Your task to perform on an android device: turn off data saver in the chrome app Image 0: 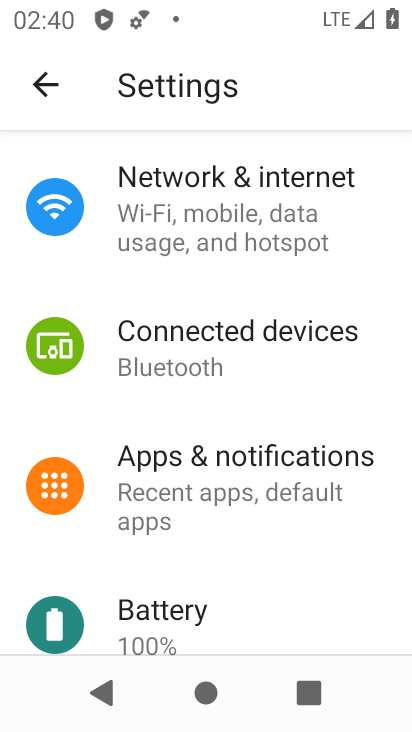
Step 0: press home button
Your task to perform on an android device: turn off data saver in the chrome app Image 1: 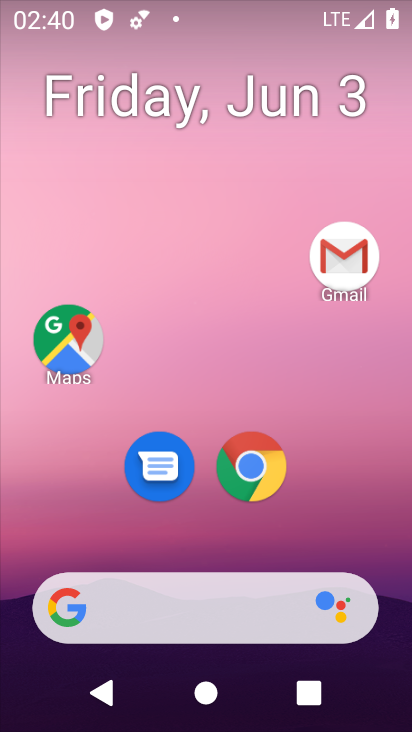
Step 1: drag from (192, 532) to (220, 128)
Your task to perform on an android device: turn off data saver in the chrome app Image 2: 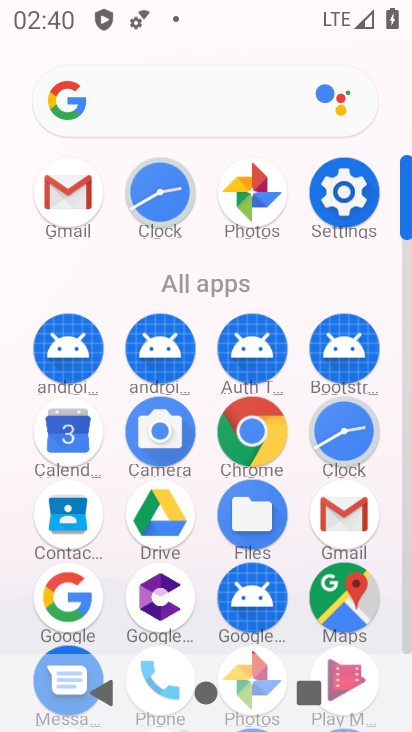
Step 2: click (263, 431)
Your task to perform on an android device: turn off data saver in the chrome app Image 3: 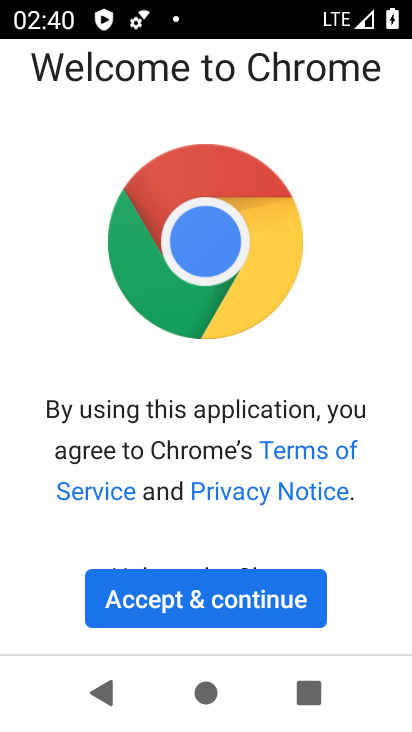
Step 3: click (195, 619)
Your task to perform on an android device: turn off data saver in the chrome app Image 4: 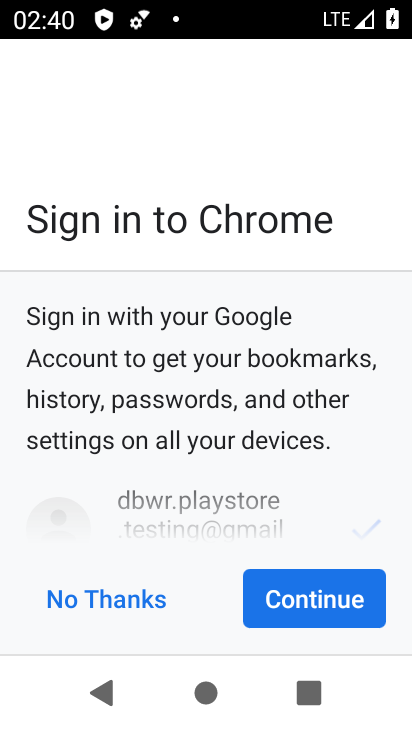
Step 4: click (348, 583)
Your task to perform on an android device: turn off data saver in the chrome app Image 5: 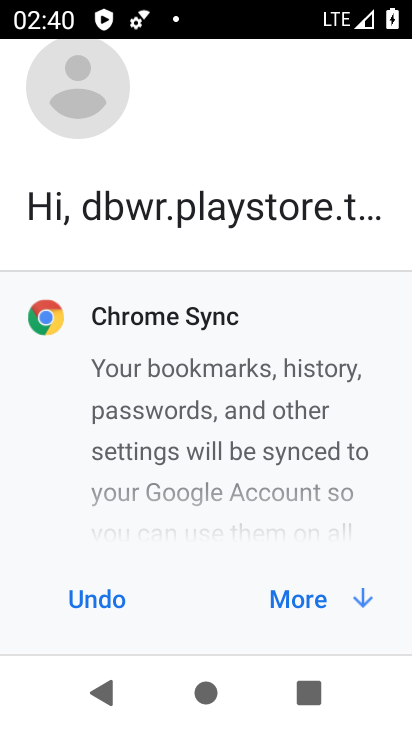
Step 5: click (311, 614)
Your task to perform on an android device: turn off data saver in the chrome app Image 6: 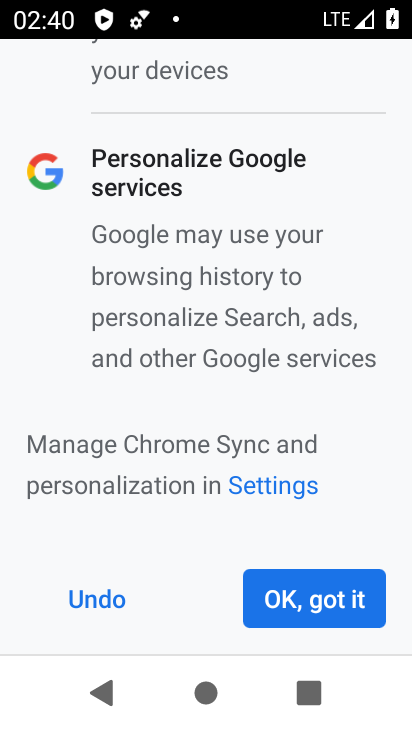
Step 6: click (309, 614)
Your task to perform on an android device: turn off data saver in the chrome app Image 7: 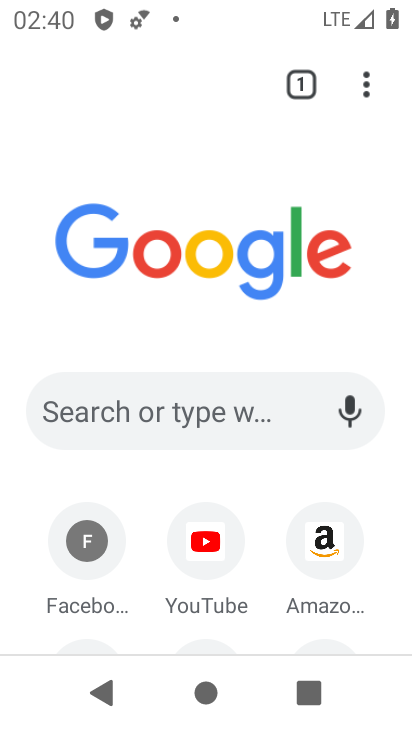
Step 7: click (365, 93)
Your task to perform on an android device: turn off data saver in the chrome app Image 8: 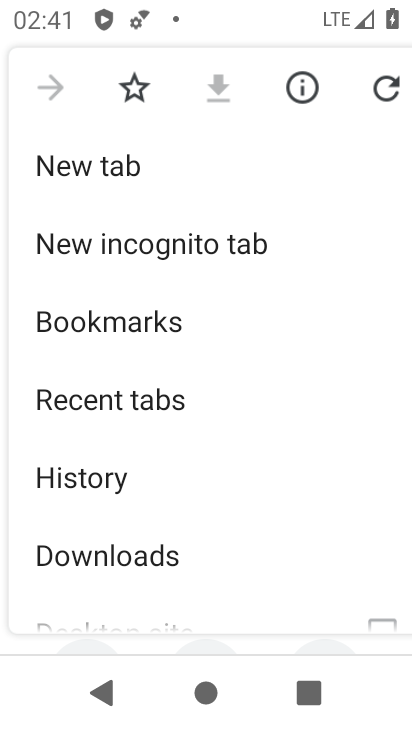
Step 8: drag from (183, 564) to (191, 354)
Your task to perform on an android device: turn off data saver in the chrome app Image 9: 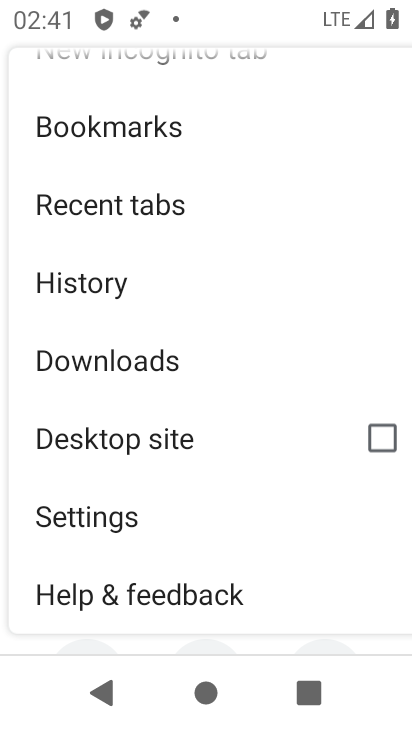
Step 9: drag from (161, 571) to (187, 344)
Your task to perform on an android device: turn off data saver in the chrome app Image 10: 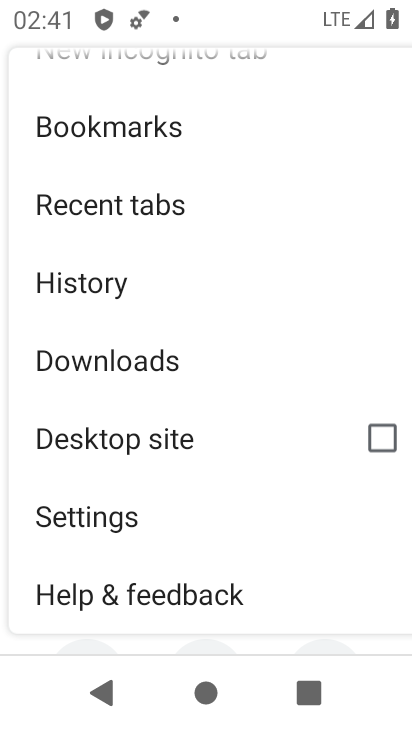
Step 10: click (81, 524)
Your task to perform on an android device: turn off data saver in the chrome app Image 11: 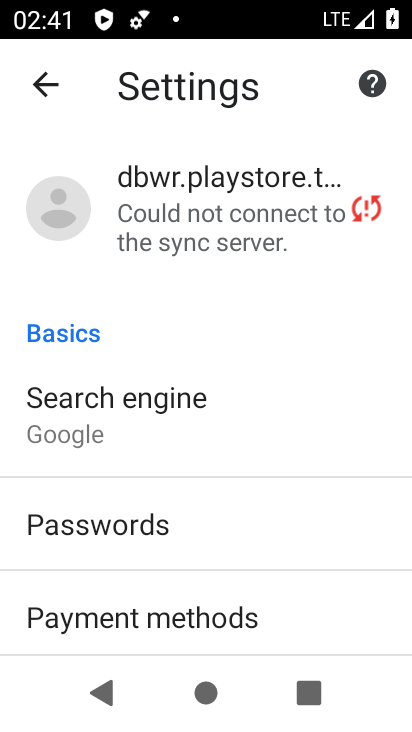
Step 11: drag from (153, 616) to (209, 309)
Your task to perform on an android device: turn off data saver in the chrome app Image 12: 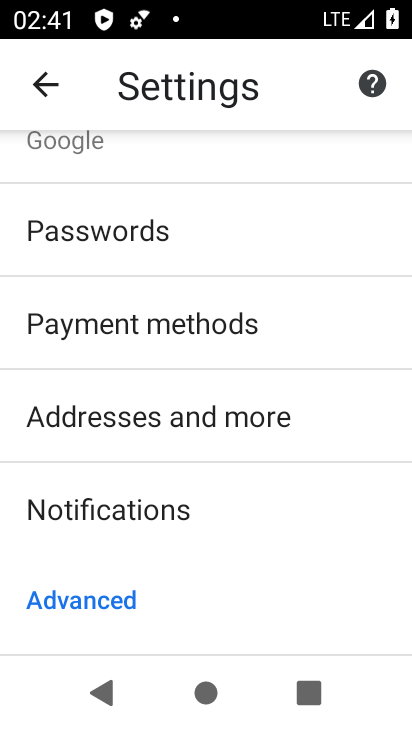
Step 12: drag from (191, 537) to (236, 234)
Your task to perform on an android device: turn off data saver in the chrome app Image 13: 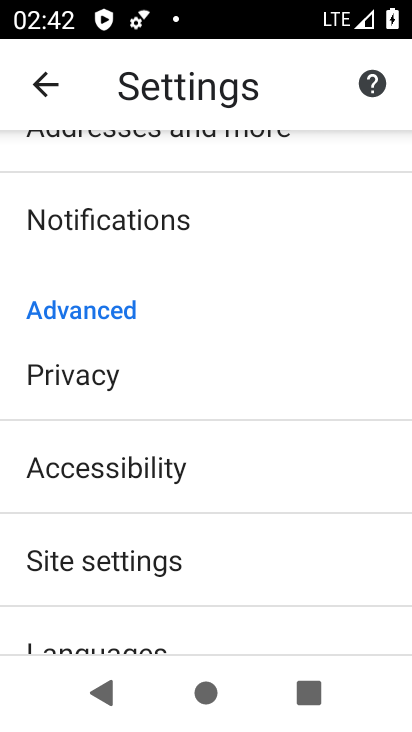
Step 13: drag from (204, 603) to (217, 315)
Your task to perform on an android device: turn off data saver in the chrome app Image 14: 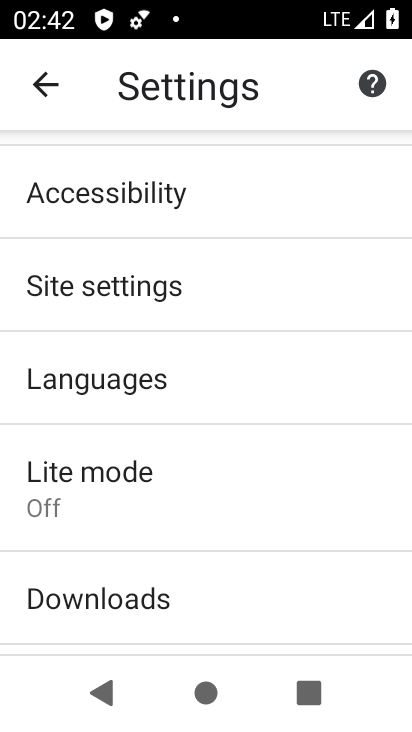
Step 14: click (139, 487)
Your task to perform on an android device: turn off data saver in the chrome app Image 15: 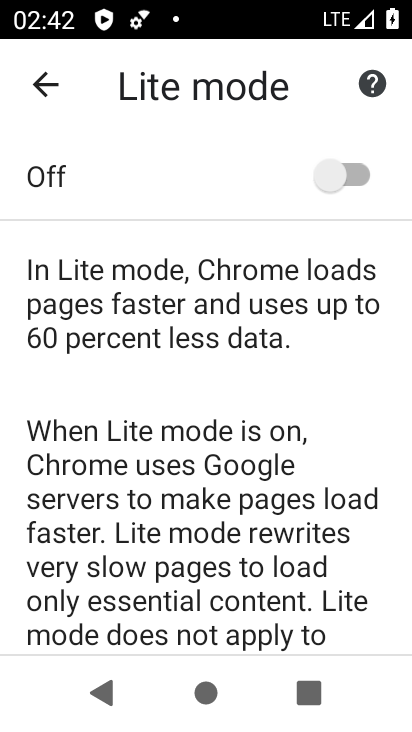
Step 15: task complete